Your task to perform on an android device: Show me popular videos on Youtube Image 0: 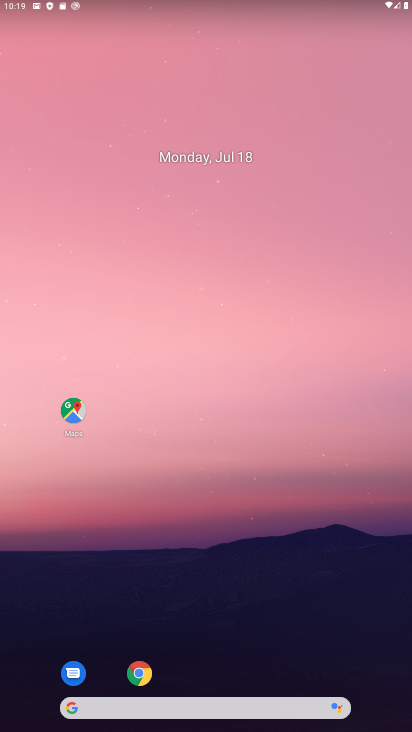
Step 0: drag from (262, 649) to (250, 198)
Your task to perform on an android device: Show me popular videos on Youtube Image 1: 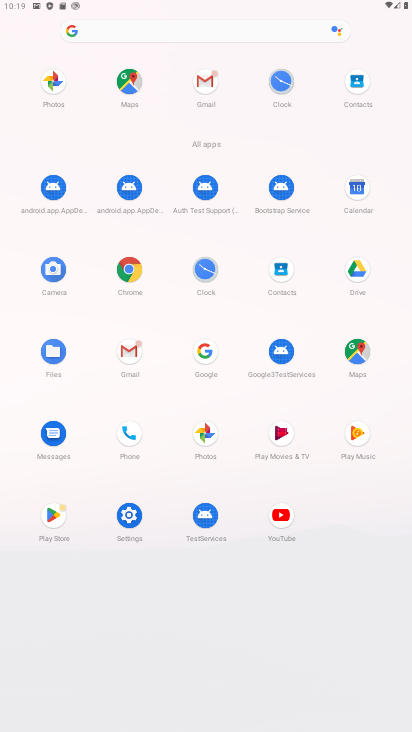
Step 1: click (277, 509)
Your task to perform on an android device: Show me popular videos on Youtube Image 2: 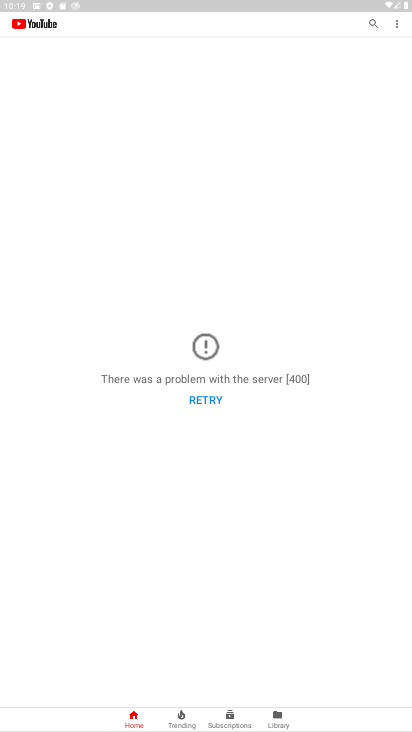
Step 2: click (189, 396)
Your task to perform on an android device: Show me popular videos on Youtube Image 3: 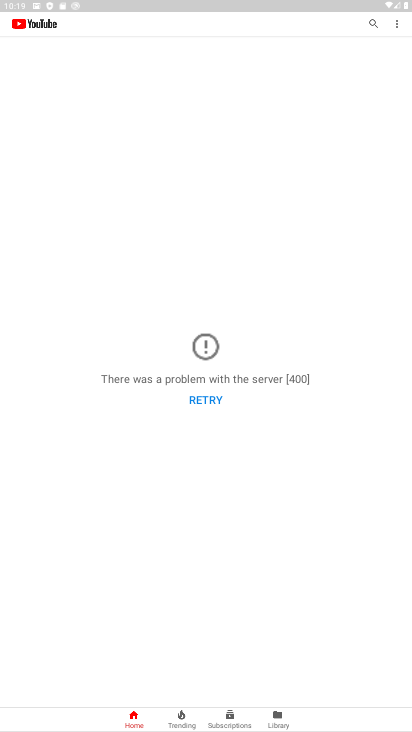
Step 3: click (189, 396)
Your task to perform on an android device: Show me popular videos on Youtube Image 4: 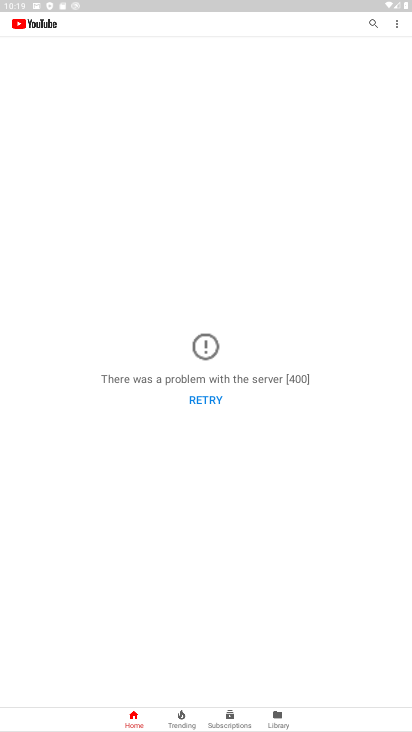
Step 4: click (211, 394)
Your task to perform on an android device: Show me popular videos on Youtube Image 5: 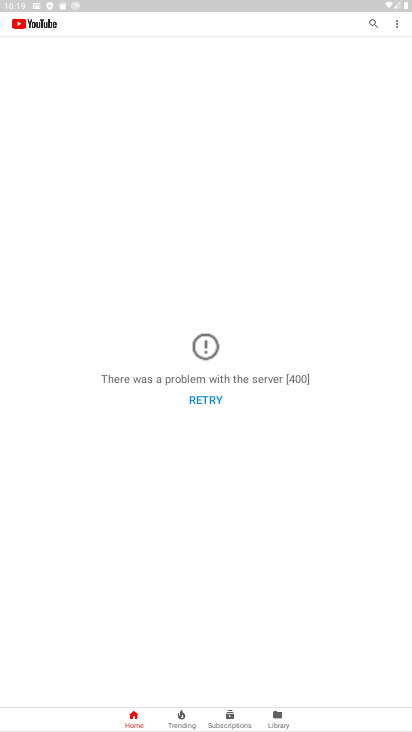
Step 5: task complete